Your task to perform on an android device: Open calendar and show me the third week of next month Image 0: 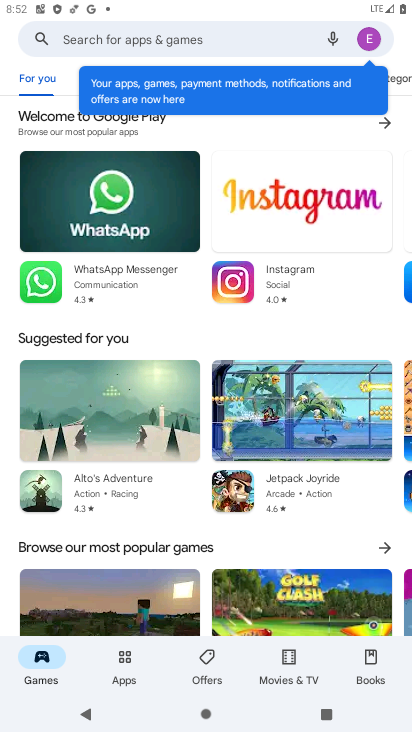
Step 0: press home button
Your task to perform on an android device: Open calendar and show me the third week of next month Image 1: 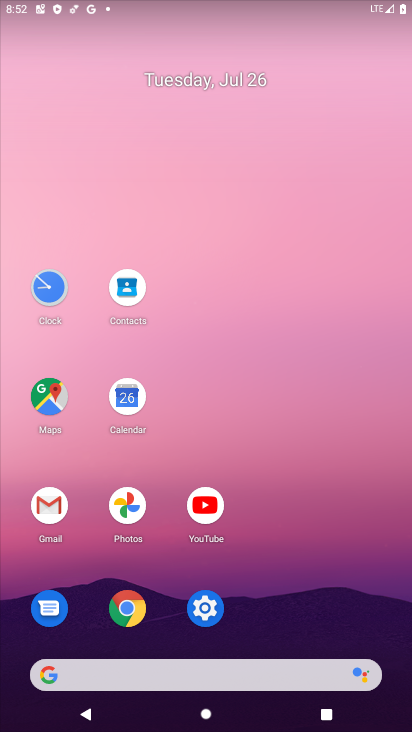
Step 1: click (126, 387)
Your task to perform on an android device: Open calendar and show me the third week of next month Image 2: 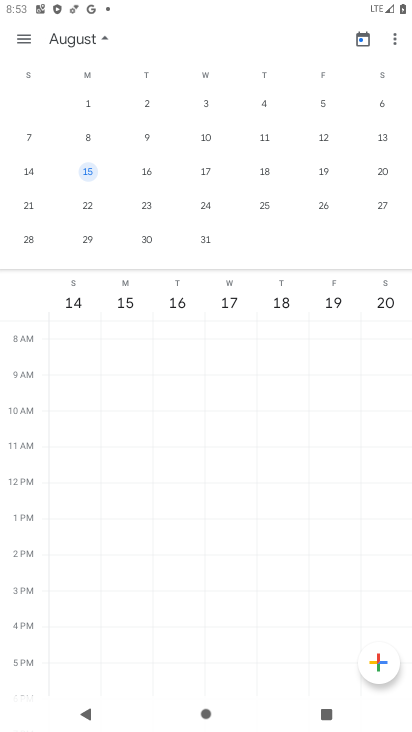
Step 2: click (86, 171)
Your task to perform on an android device: Open calendar and show me the third week of next month Image 3: 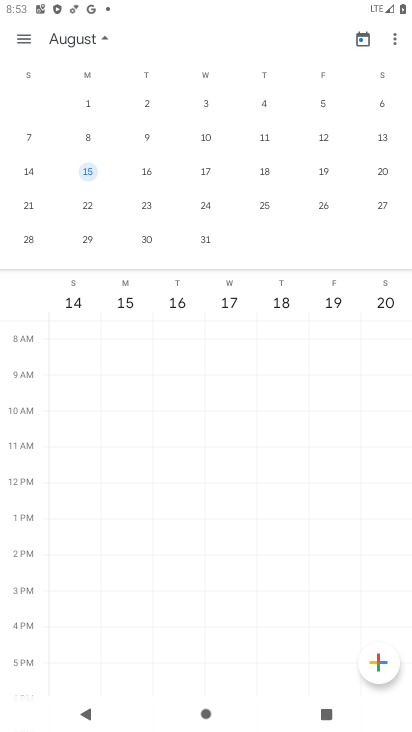
Step 3: task complete